Your task to perform on an android device: Open notification settings Image 0: 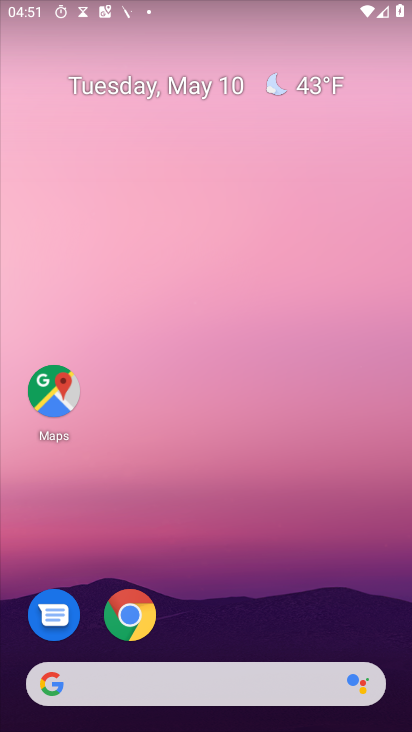
Step 0: drag from (300, 688) to (223, 11)
Your task to perform on an android device: Open notification settings Image 1: 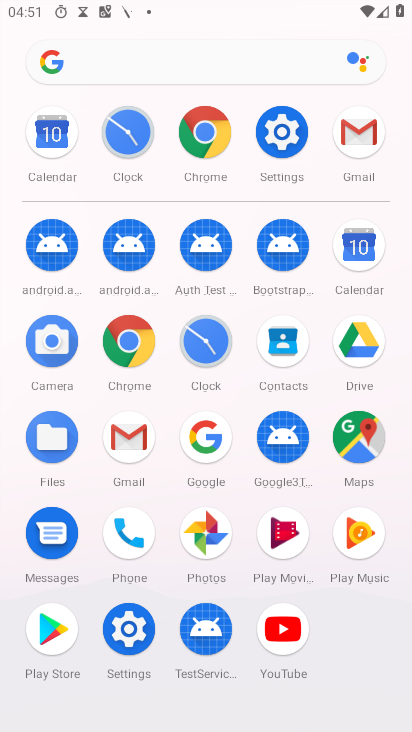
Step 1: click (282, 136)
Your task to perform on an android device: Open notification settings Image 2: 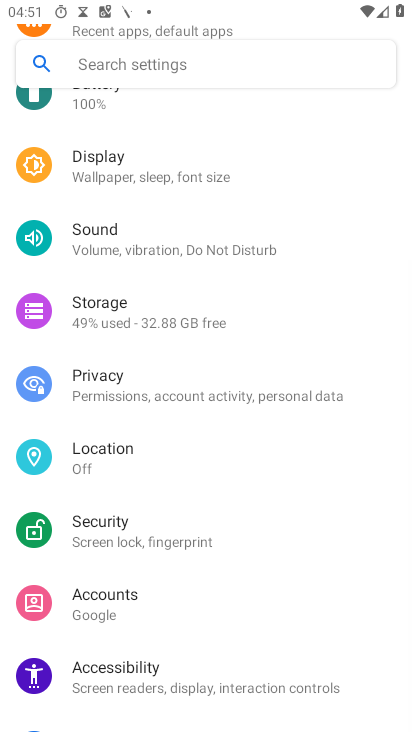
Step 2: drag from (180, 216) to (266, 605)
Your task to perform on an android device: Open notification settings Image 3: 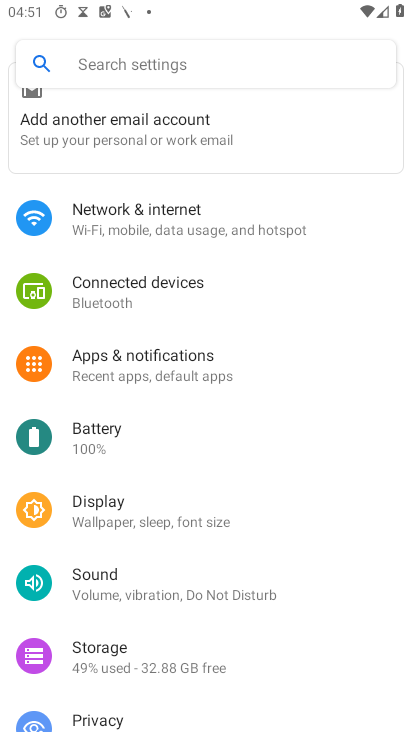
Step 3: click (202, 358)
Your task to perform on an android device: Open notification settings Image 4: 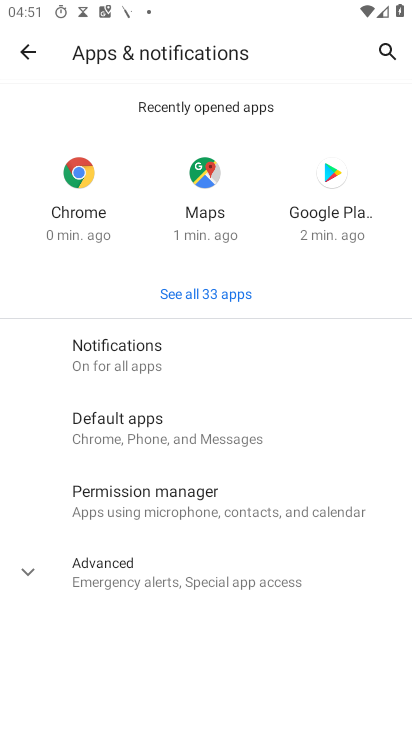
Step 4: task complete